Your task to perform on an android device: turn off javascript in the chrome app Image 0: 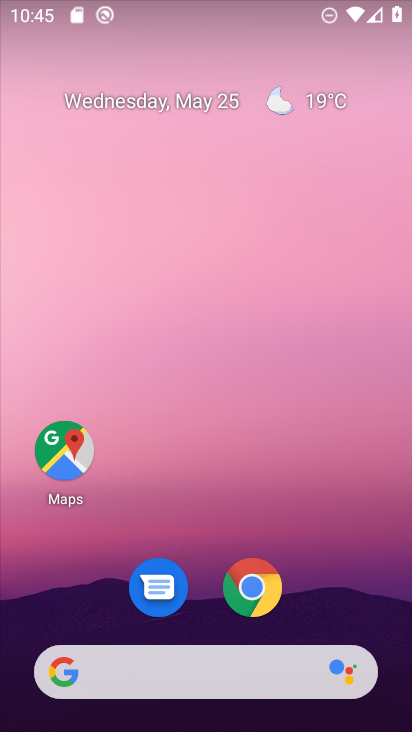
Step 0: click (254, 585)
Your task to perform on an android device: turn off javascript in the chrome app Image 1: 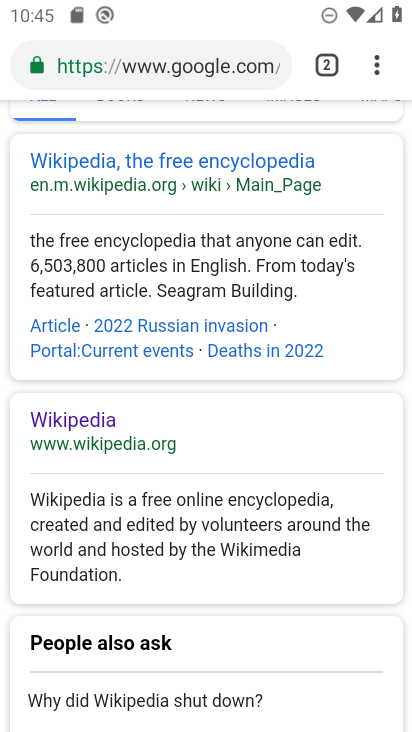
Step 1: click (374, 69)
Your task to perform on an android device: turn off javascript in the chrome app Image 2: 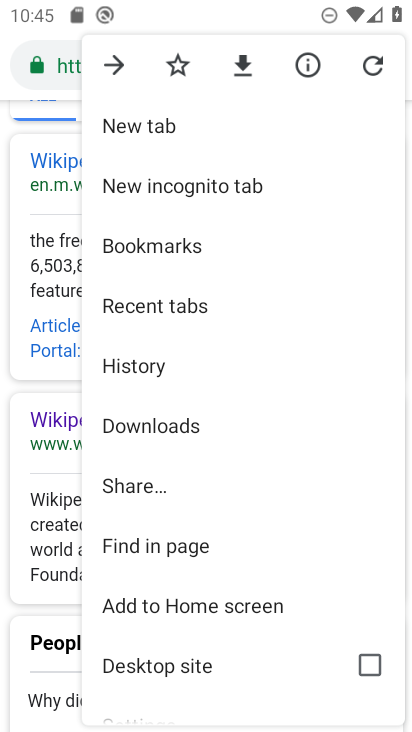
Step 2: drag from (296, 630) to (291, 133)
Your task to perform on an android device: turn off javascript in the chrome app Image 3: 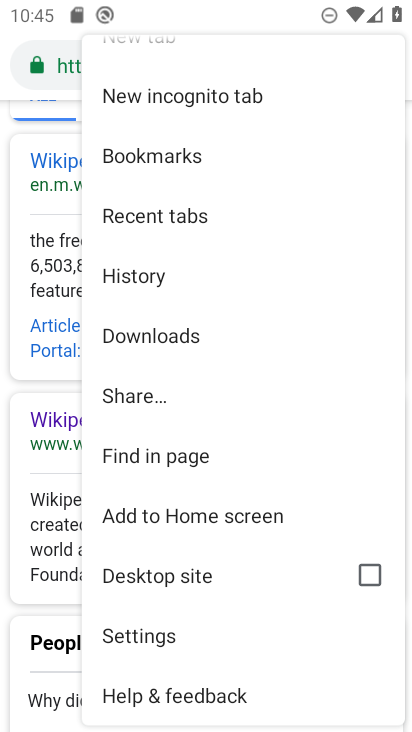
Step 3: click (125, 631)
Your task to perform on an android device: turn off javascript in the chrome app Image 4: 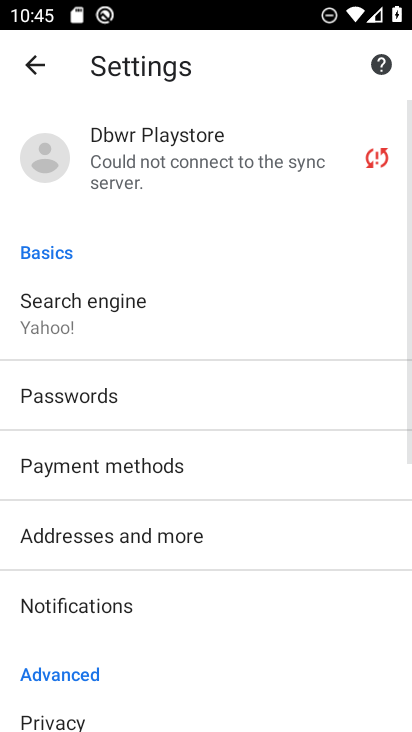
Step 4: drag from (252, 671) to (241, 336)
Your task to perform on an android device: turn off javascript in the chrome app Image 5: 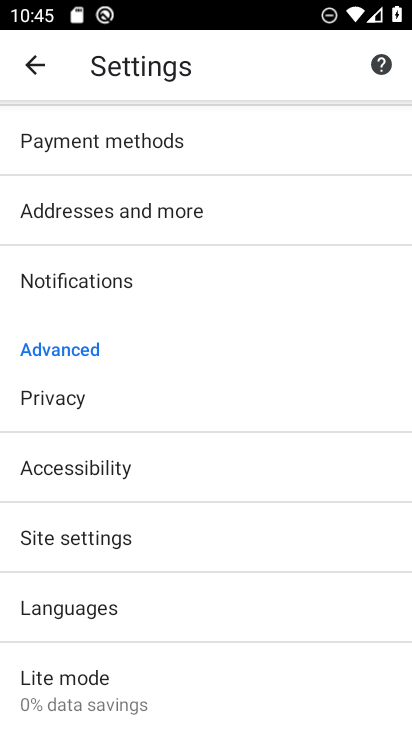
Step 5: click (91, 537)
Your task to perform on an android device: turn off javascript in the chrome app Image 6: 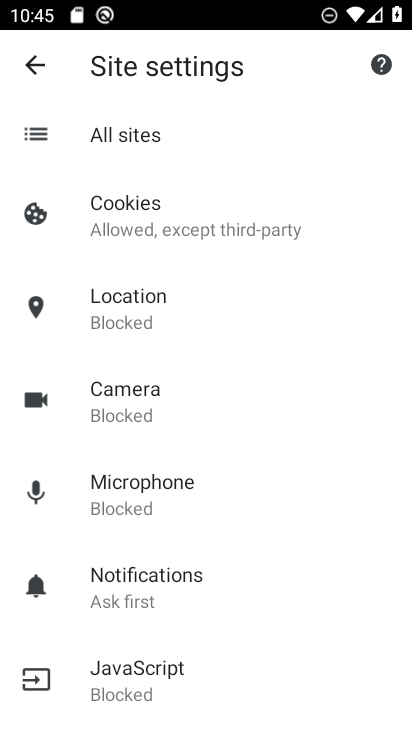
Step 6: click (79, 675)
Your task to perform on an android device: turn off javascript in the chrome app Image 7: 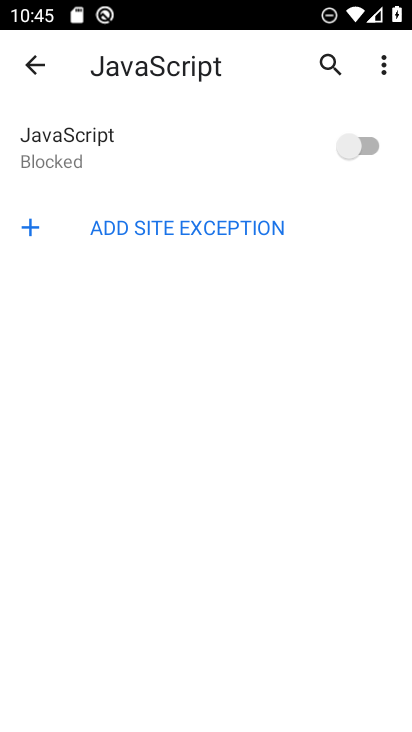
Step 7: task complete